Your task to perform on an android device: open app "DoorDash - Dasher" Image 0: 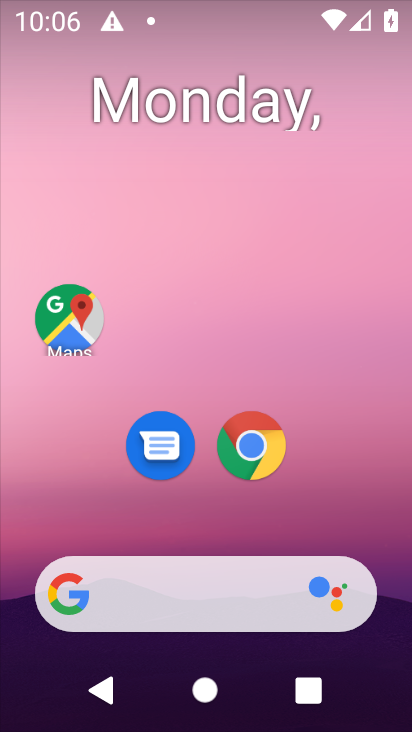
Step 0: drag from (373, 534) to (229, 66)
Your task to perform on an android device: open app "DoorDash - Dasher" Image 1: 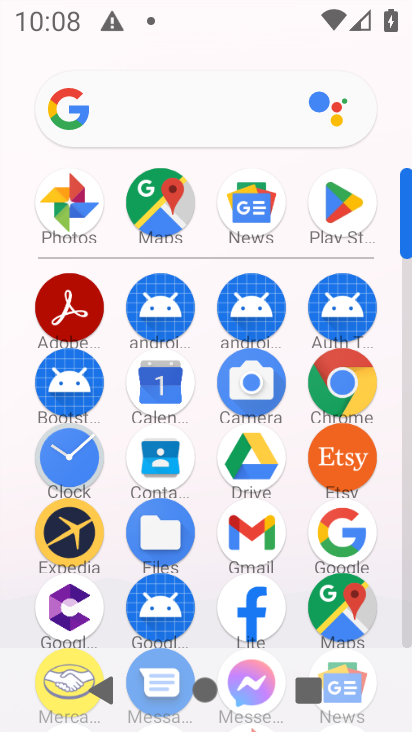
Step 1: click (367, 208)
Your task to perform on an android device: open app "DoorDash - Dasher" Image 2: 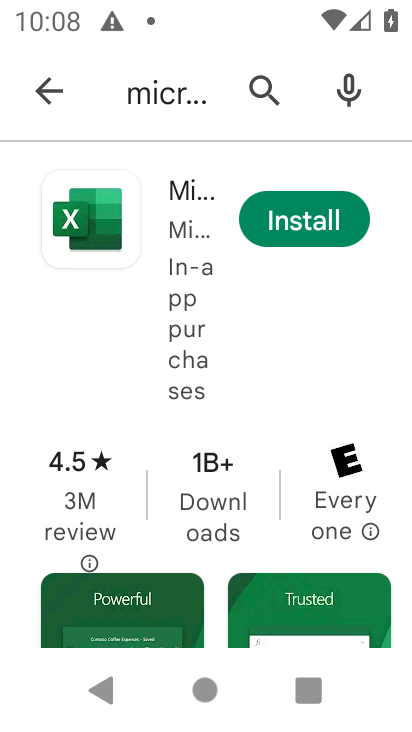
Step 2: press back button
Your task to perform on an android device: open app "DoorDash - Dasher" Image 3: 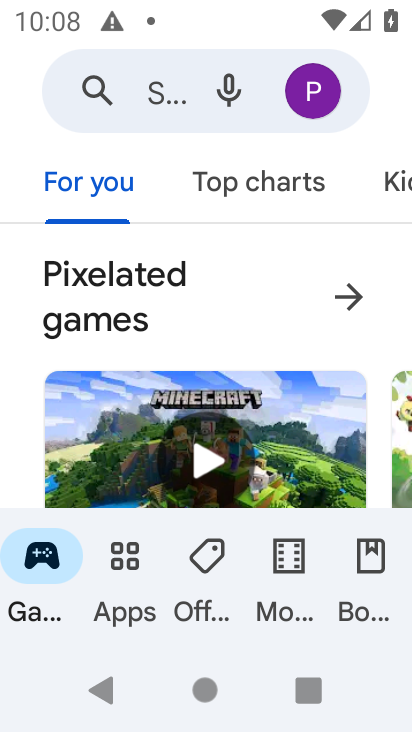
Step 3: click (147, 87)
Your task to perform on an android device: open app "DoorDash - Dasher" Image 4: 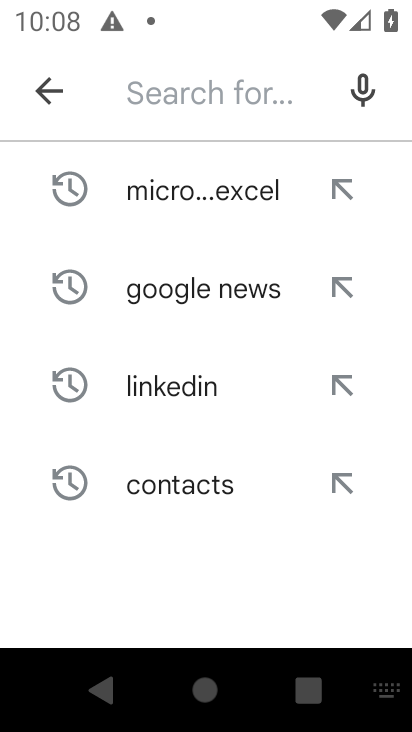
Step 4: type "DoorDash - Dasher"
Your task to perform on an android device: open app "DoorDash - Dasher" Image 5: 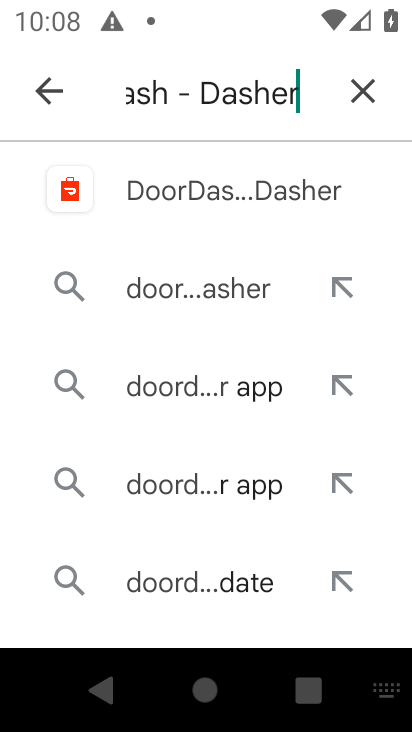
Step 5: click (168, 194)
Your task to perform on an android device: open app "DoorDash - Dasher" Image 6: 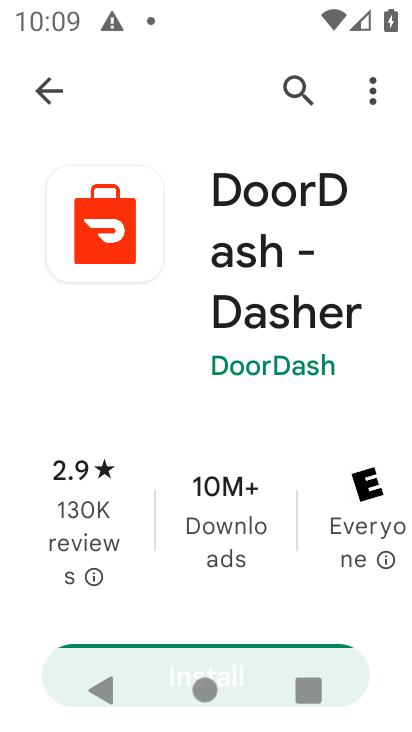
Step 6: task complete